Your task to perform on an android device: toggle translation in the chrome app Image 0: 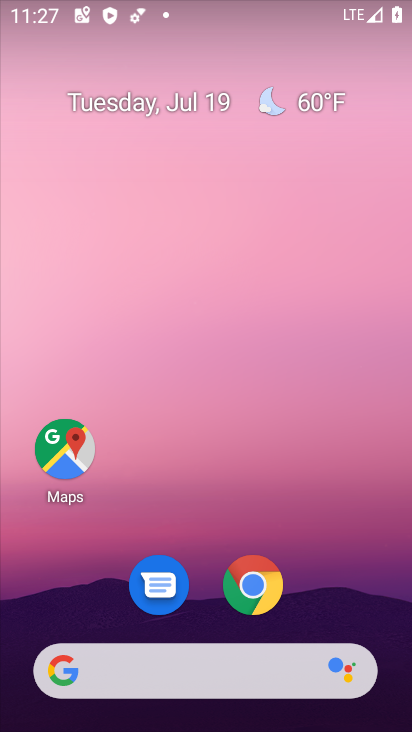
Step 0: click (273, 577)
Your task to perform on an android device: toggle translation in the chrome app Image 1: 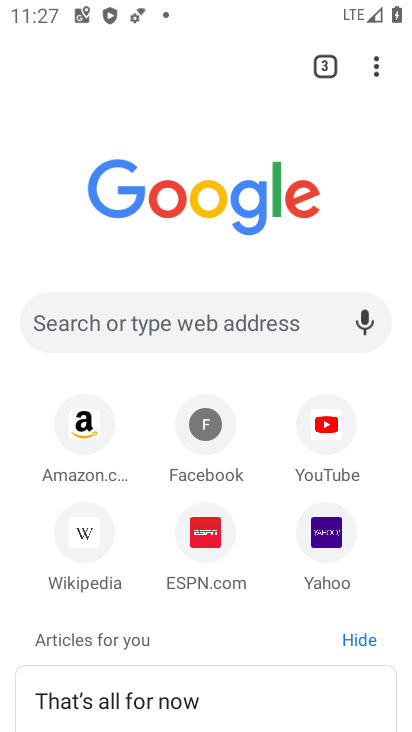
Step 1: click (377, 69)
Your task to perform on an android device: toggle translation in the chrome app Image 2: 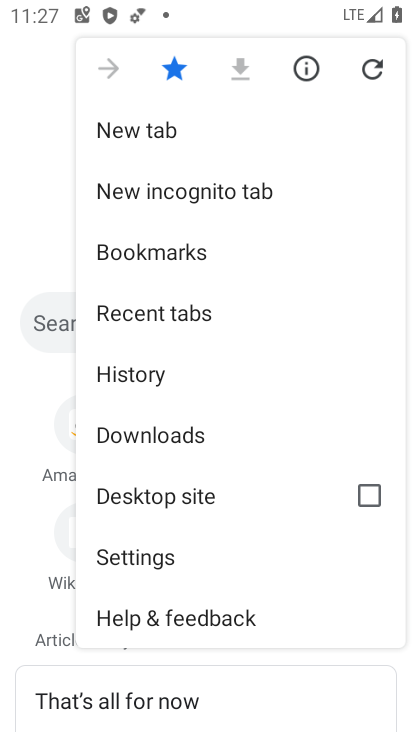
Step 2: click (167, 559)
Your task to perform on an android device: toggle translation in the chrome app Image 3: 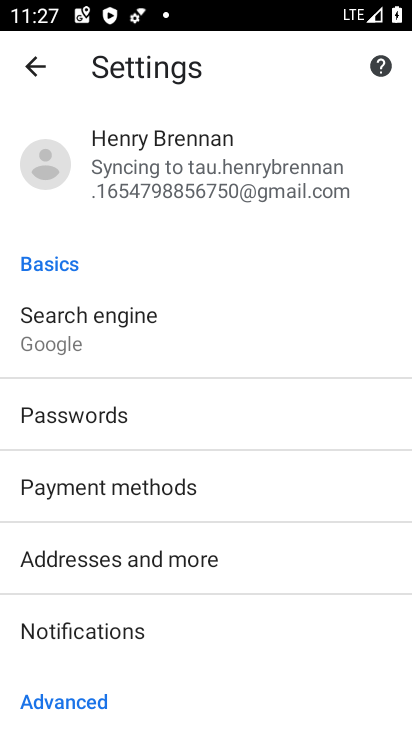
Step 3: drag from (229, 627) to (227, 186)
Your task to perform on an android device: toggle translation in the chrome app Image 4: 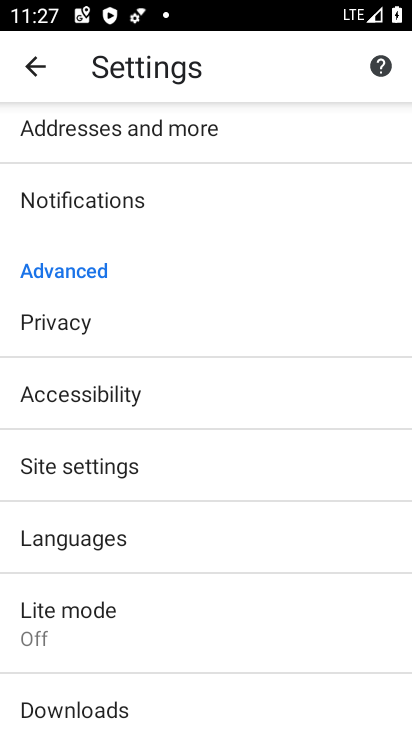
Step 4: click (201, 537)
Your task to perform on an android device: toggle translation in the chrome app Image 5: 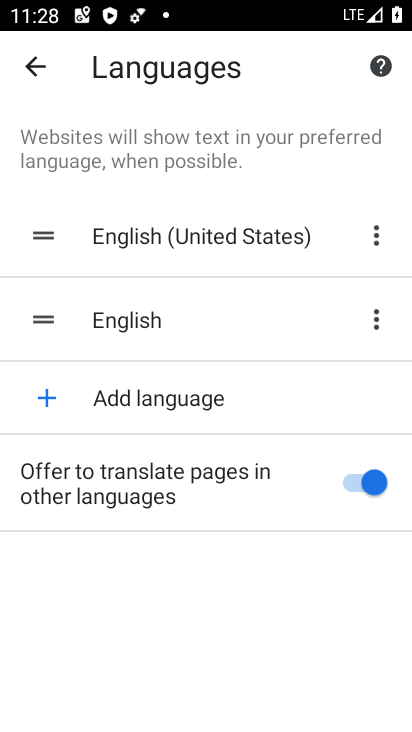
Step 5: click (367, 473)
Your task to perform on an android device: toggle translation in the chrome app Image 6: 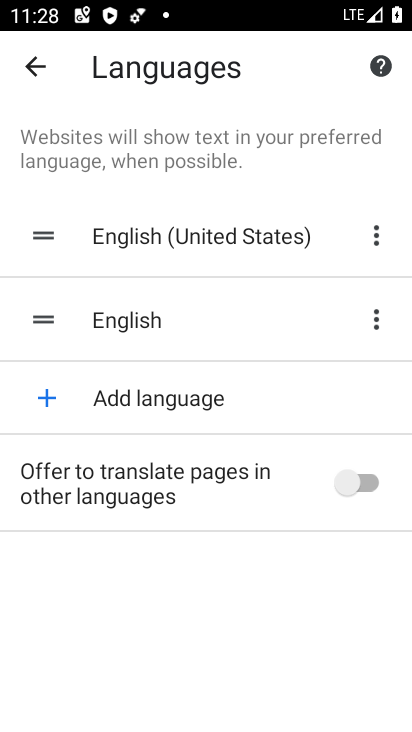
Step 6: task complete